Your task to perform on an android device: When is my next appointment? Image 0: 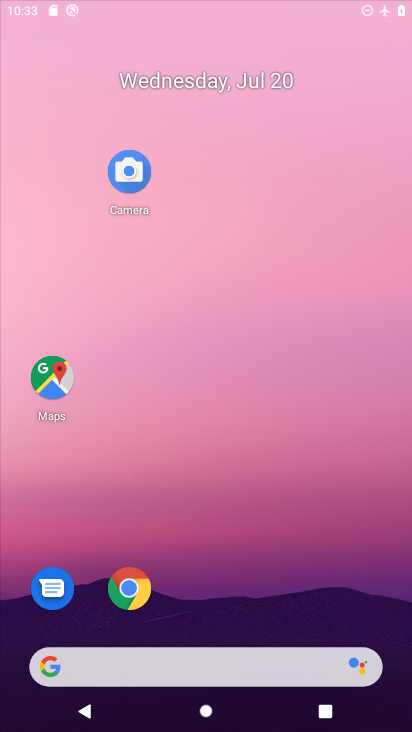
Step 0: press home button
Your task to perform on an android device: When is my next appointment? Image 1: 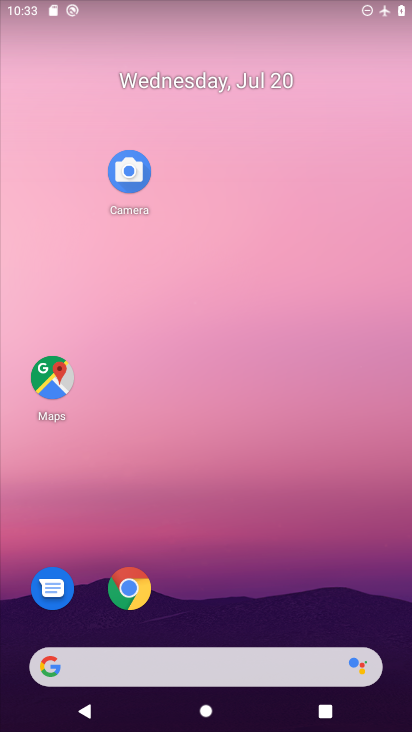
Step 1: drag from (286, 607) to (256, 188)
Your task to perform on an android device: When is my next appointment? Image 2: 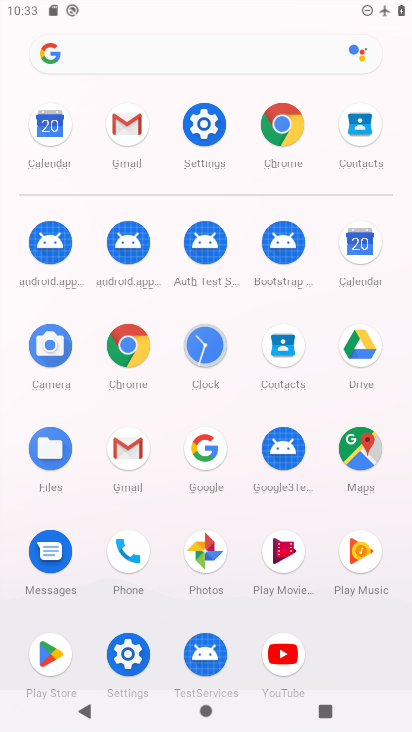
Step 2: click (367, 246)
Your task to perform on an android device: When is my next appointment? Image 3: 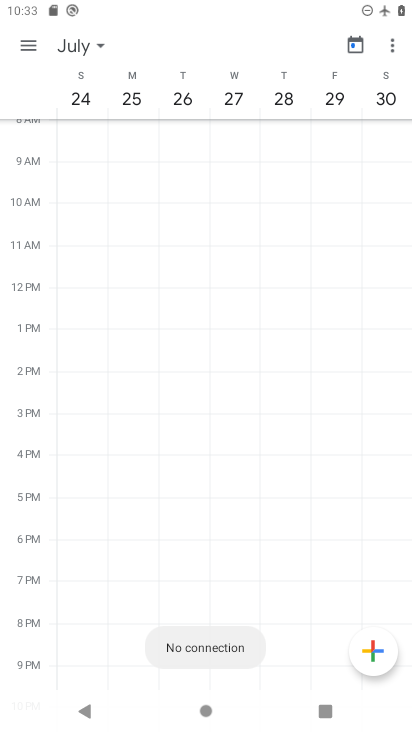
Step 3: click (37, 43)
Your task to perform on an android device: When is my next appointment? Image 4: 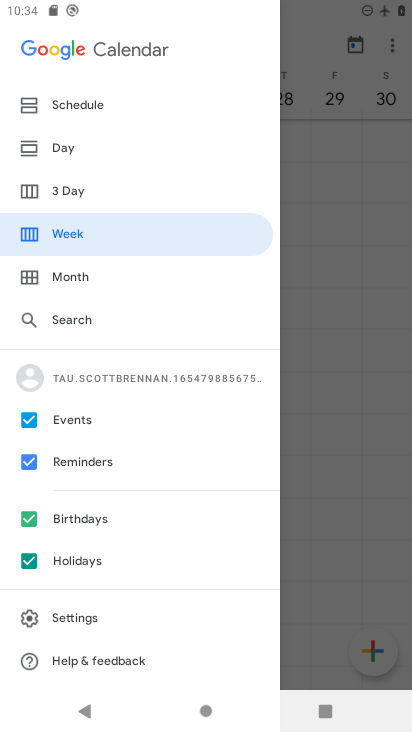
Step 4: click (81, 100)
Your task to perform on an android device: When is my next appointment? Image 5: 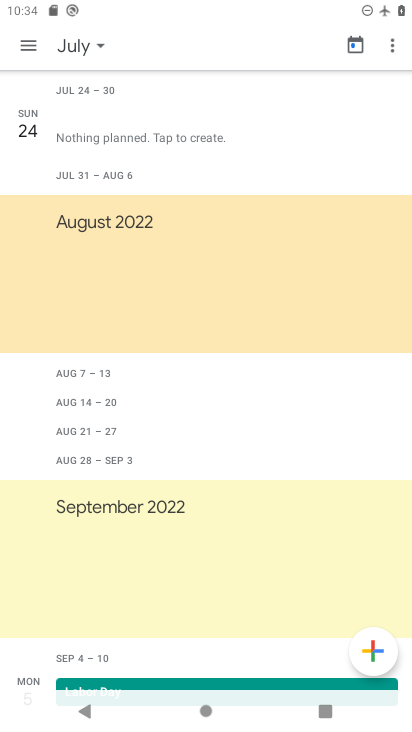
Step 5: task complete